Your task to perform on an android device: turn on notifications settings in the gmail app Image 0: 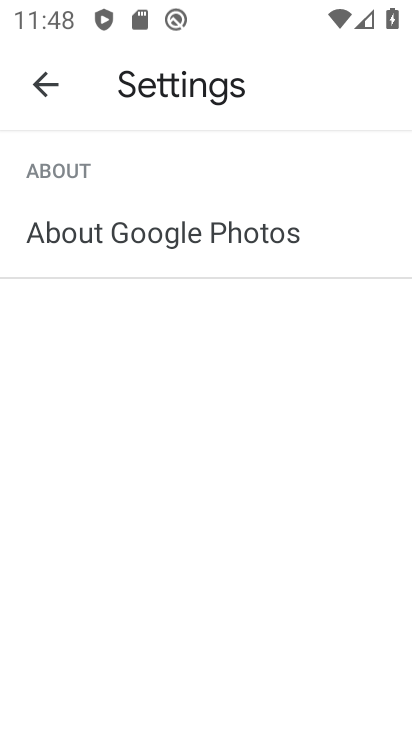
Step 0: press home button
Your task to perform on an android device: turn on notifications settings in the gmail app Image 1: 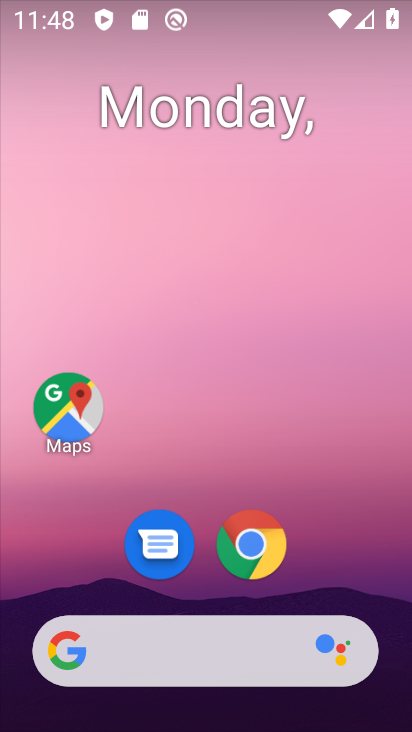
Step 1: drag from (290, 480) to (304, 210)
Your task to perform on an android device: turn on notifications settings in the gmail app Image 2: 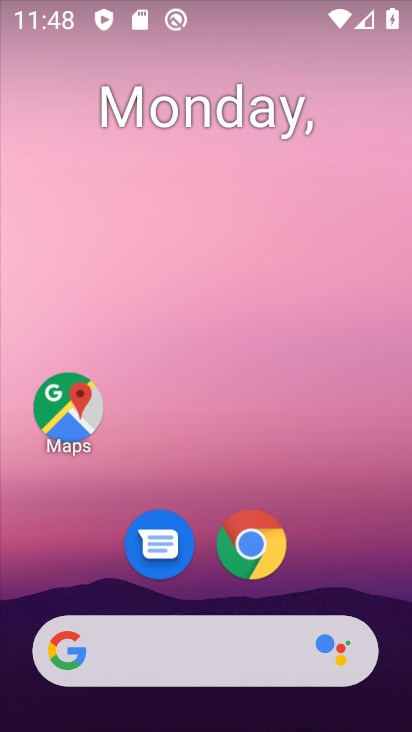
Step 2: drag from (388, 516) to (389, 162)
Your task to perform on an android device: turn on notifications settings in the gmail app Image 3: 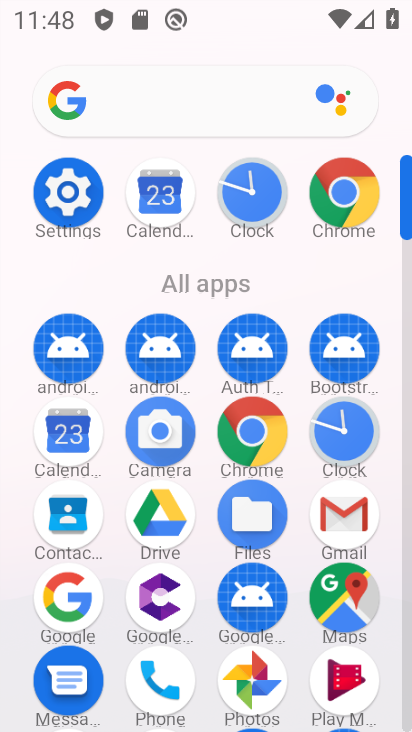
Step 3: click (331, 530)
Your task to perform on an android device: turn on notifications settings in the gmail app Image 4: 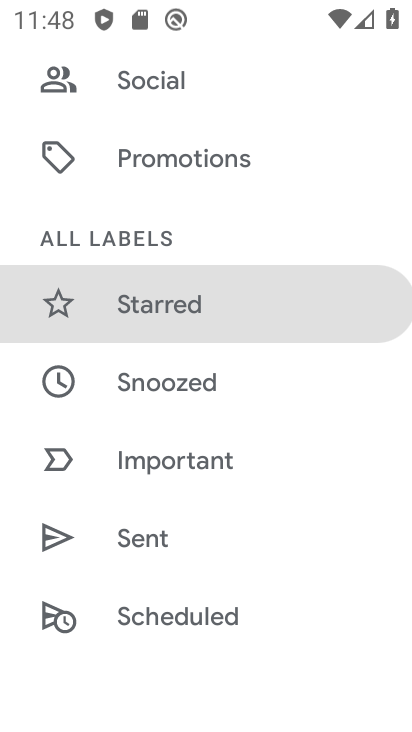
Step 4: drag from (254, 604) to (287, 250)
Your task to perform on an android device: turn on notifications settings in the gmail app Image 5: 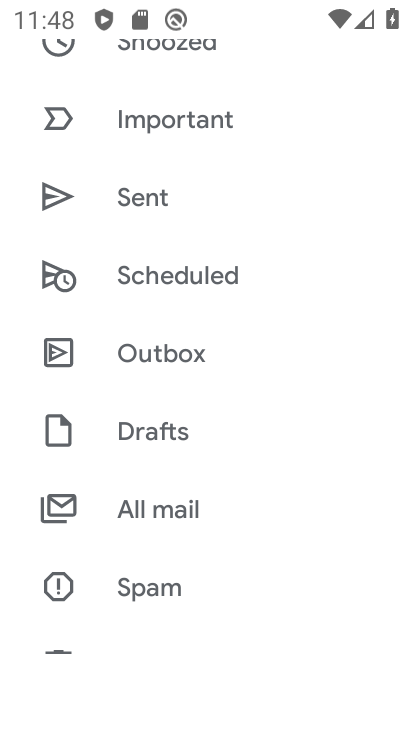
Step 5: drag from (311, 606) to (303, 200)
Your task to perform on an android device: turn on notifications settings in the gmail app Image 6: 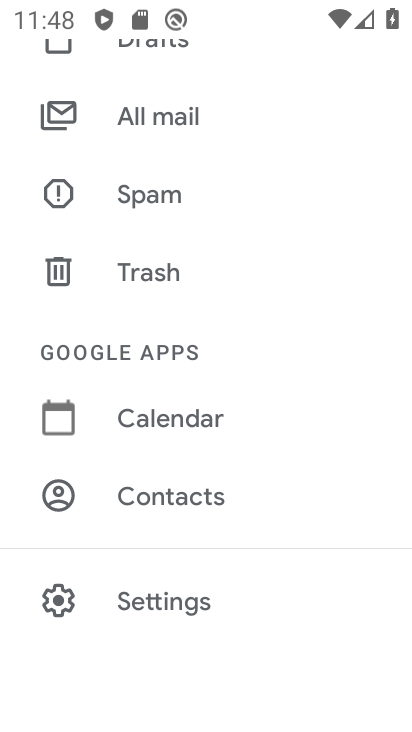
Step 6: click (186, 588)
Your task to perform on an android device: turn on notifications settings in the gmail app Image 7: 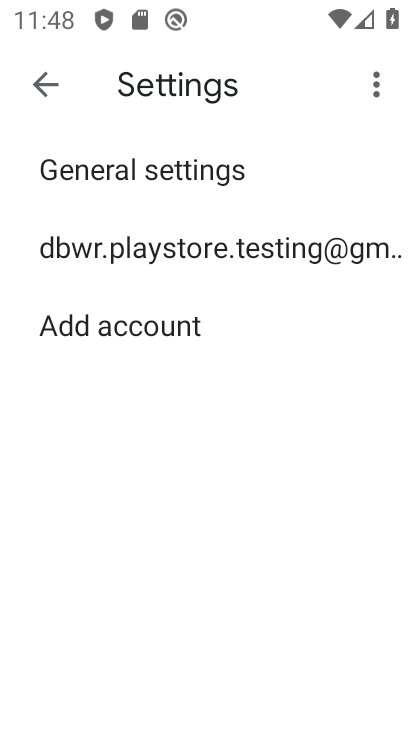
Step 7: click (337, 182)
Your task to perform on an android device: turn on notifications settings in the gmail app Image 8: 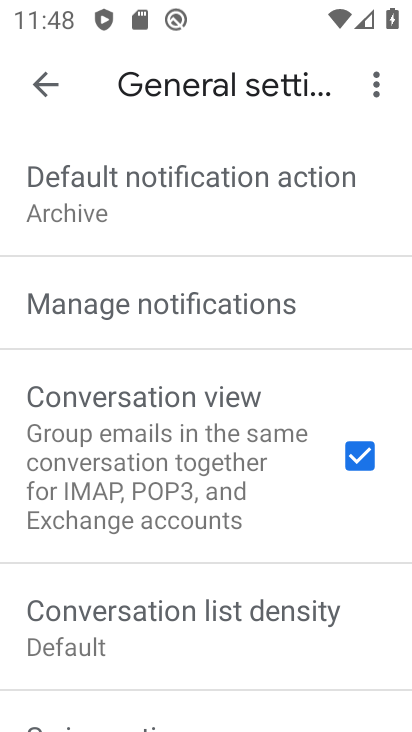
Step 8: drag from (151, 525) to (151, 237)
Your task to perform on an android device: turn on notifications settings in the gmail app Image 9: 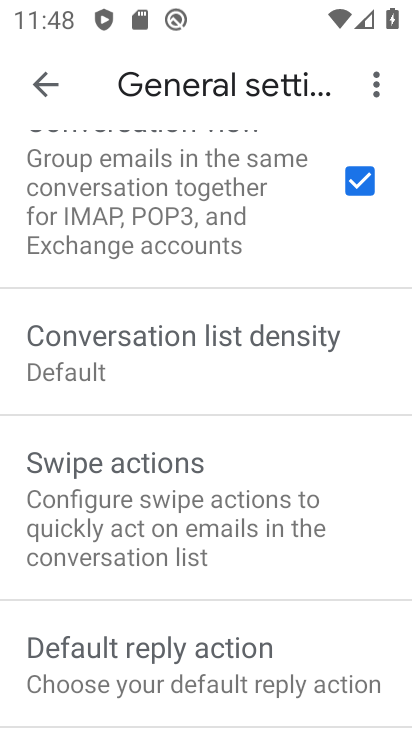
Step 9: drag from (154, 550) to (158, 222)
Your task to perform on an android device: turn on notifications settings in the gmail app Image 10: 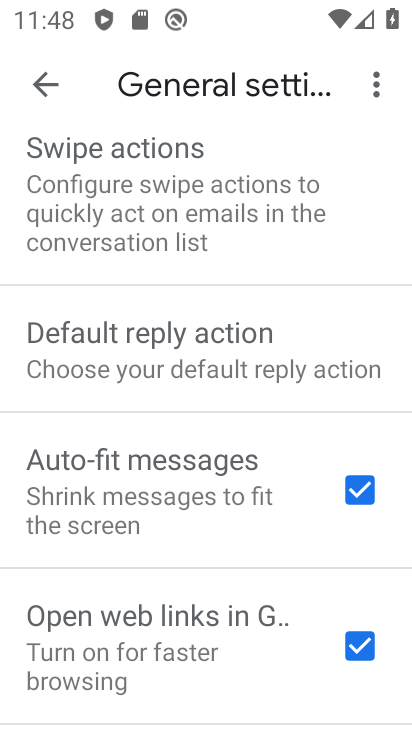
Step 10: drag from (183, 636) to (180, 273)
Your task to perform on an android device: turn on notifications settings in the gmail app Image 11: 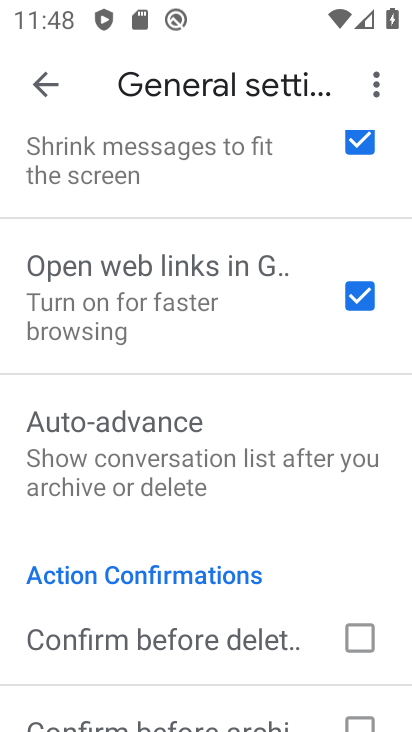
Step 11: drag from (212, 708) to (223, 389)
Your task to perform on an android device: turn on notifications settings in the gmail app Image 12: 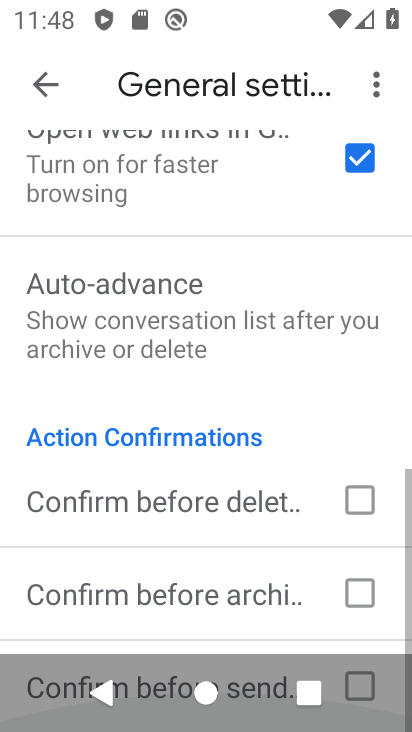
Step 12: drag from (166, 424) to (189, 317)
Your task to perform on an android device: turn on notifications settings in the gmail app Image 13: 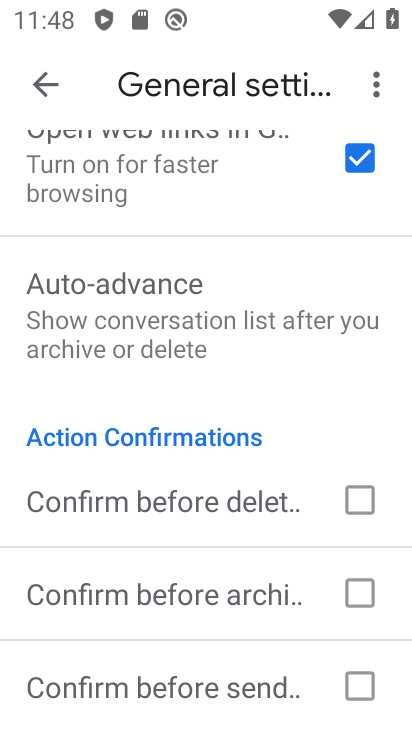
Step 13: drag from (202, 283) to (218, 664)
Your task to perform on an android device: turn on notifications settings in the gmail app Image 14: 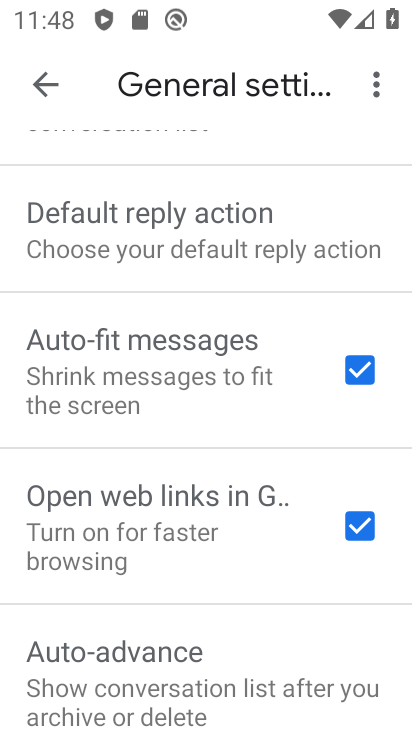
Step 14: drag from (216, 310) to (224, 606)
Your task to perform on an android device: turn on notifications settings in the gmail app Image 15: 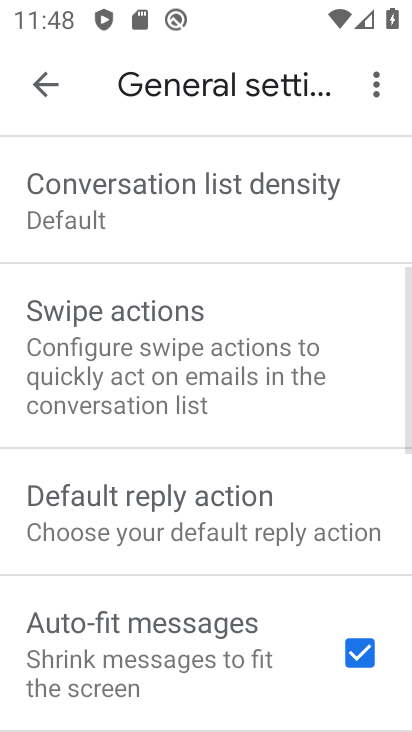
Step 15: drag from (156, 291) to (183, 704)
Your task to perform on an android device: turn on notifications settings in the gmail app Image 16: 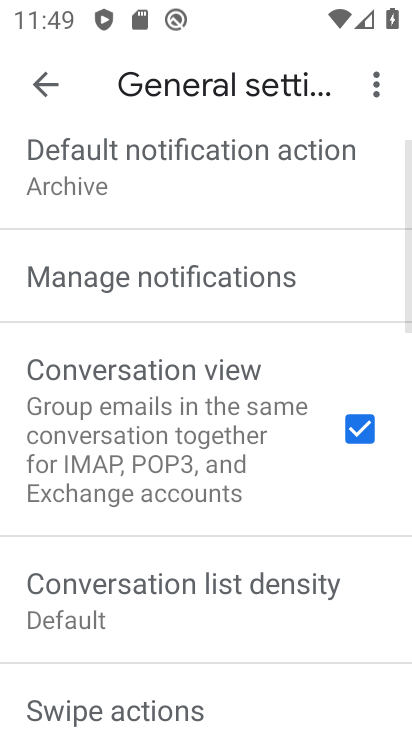
Step 16: drag from (212, 298) to (177, 588)
Your task to perform on an android device: turn on notifications settings in the gmail app Image 17: 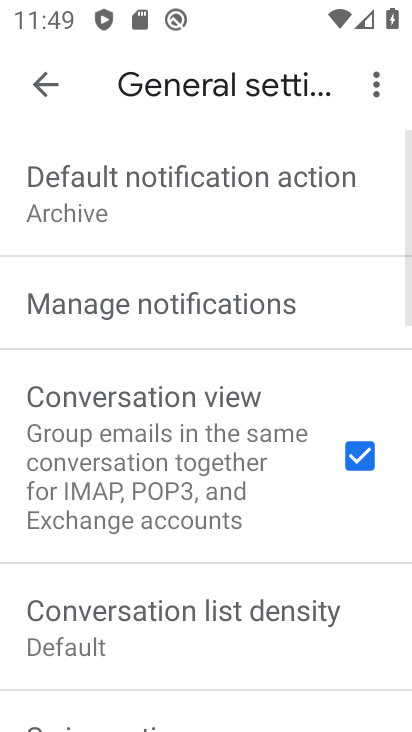
Step 17: click (209, 301)
Your task to perform on an android device: turn on notifications settings in the gmail app Image 18: 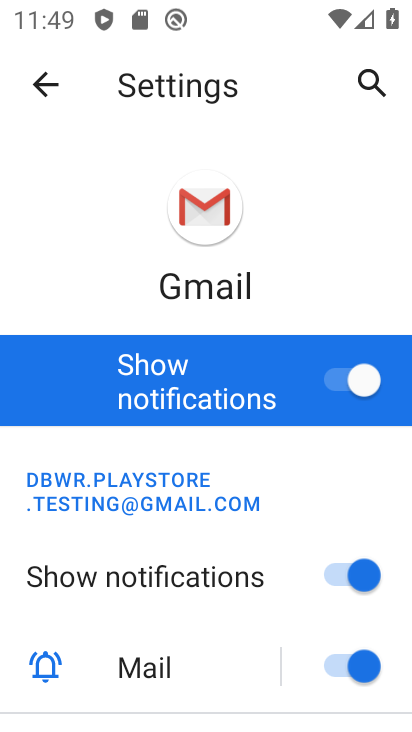
Step 18: task complete